Your task to perform on an android device: Add "logitech g502" to the cart on bestbuy Image 0: 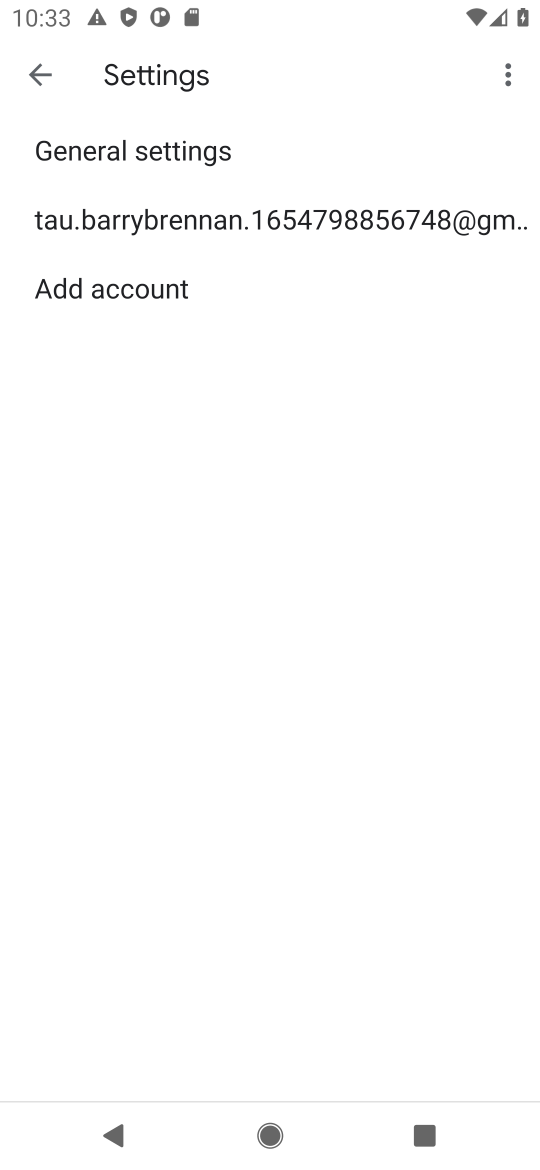
Step 0: task complete